Your task to perform on an android device: Play the last video I watched on Youtube Image 0: 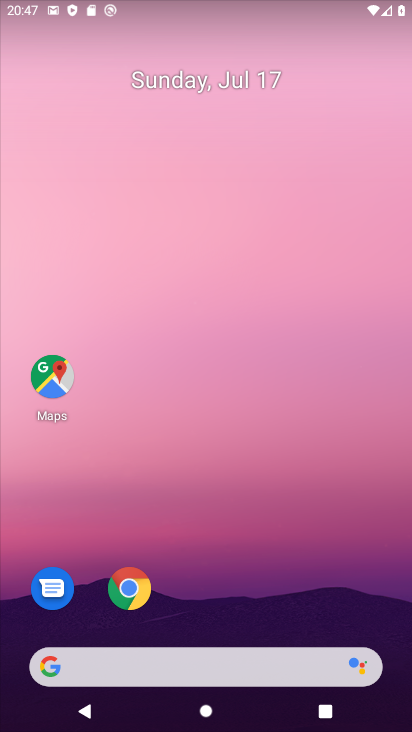
Step 0: press home button
Your task to perform on an android device: Play the last video I watched on Youtube Image 1: 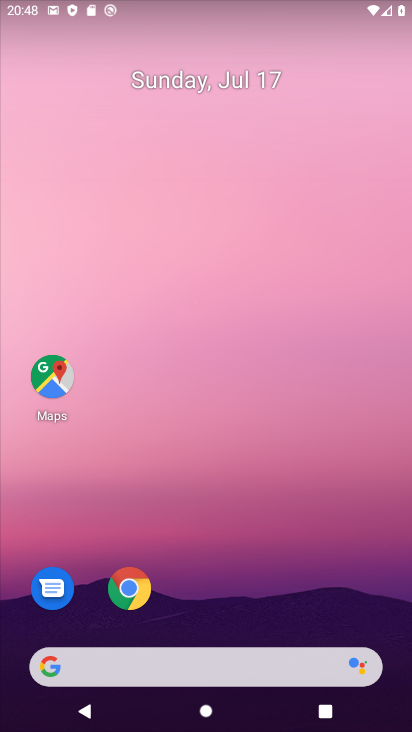
Step 1: drag from (313, 586) to (364, 0)
Your task to perform on an android device: Play the last video I watched on Youtube Image 2: 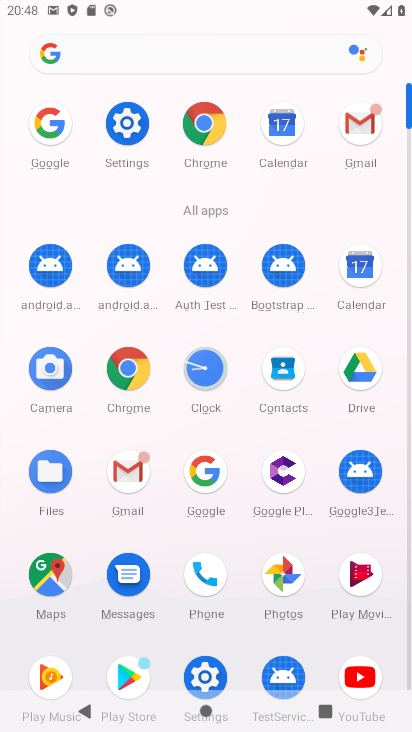
Step 2: click (363, 690)
Your task to perform on an android device: Play the last video I watched on Youtube Image 3: 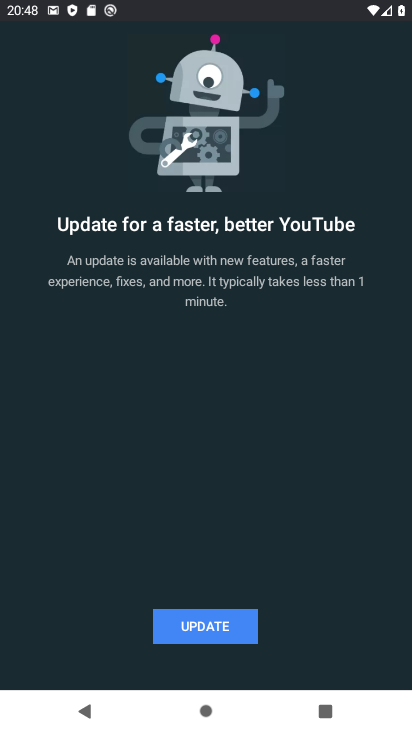
Step 3: click (256, 643)
Your task to perform on an android device: Play the last video I watched on Youtube Image 4: 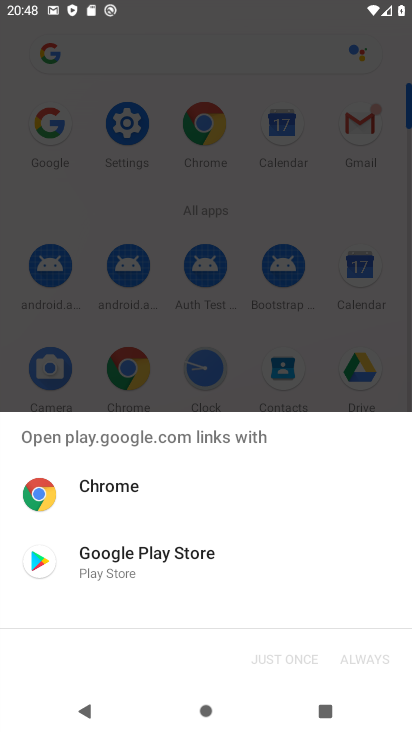
Step 4: click (183, 575)
Your task to perform on an android device: Play the last video I watched on Youtube Image 5: 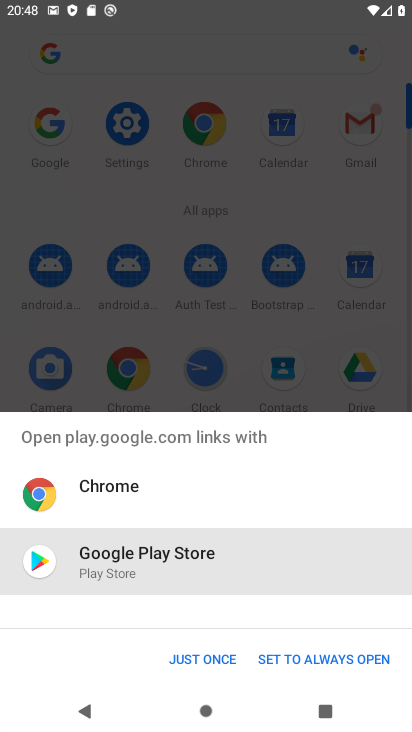
Step 5: click (219, 660)
Your task to perform on an android device: Play the last video I watched on Youtube Image 6: 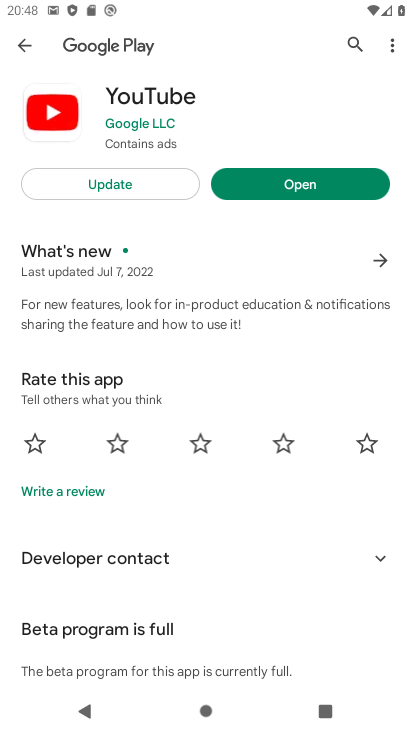
Step 6: click (122, 182)
Your task to perform on an android device: Play the last video I watched on Youtube Image 7: 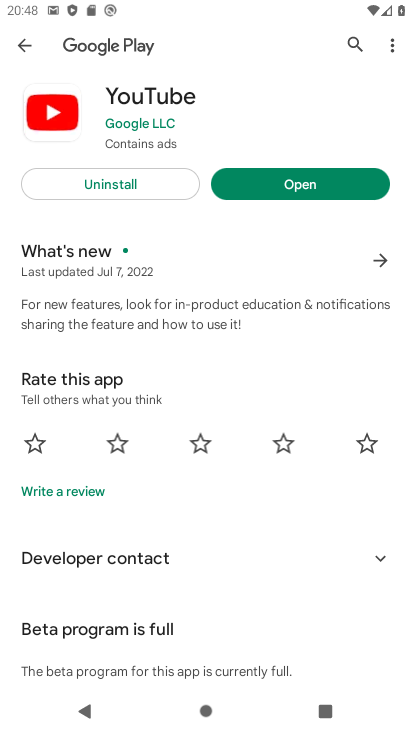
Step 7: click (324, 190)
Your task to perform on an android device: Play the last video I watched on Youtube Image 8: 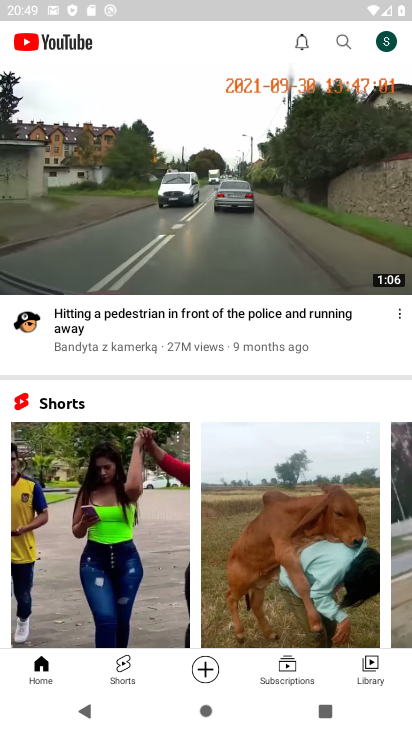
Step 8: click (363, 663)
Your task to perform on an android device: Play the last video I watched on Youtube Image 9: 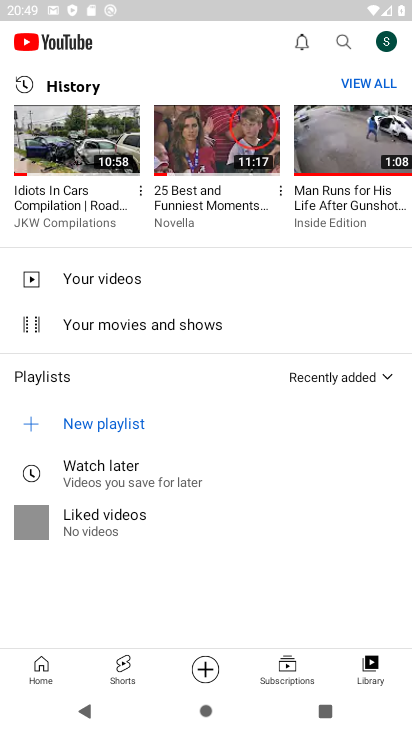
Step 9: click (52, 219)
Your task to perform on an android device: Play the last video I watched on Youtube Image 10: 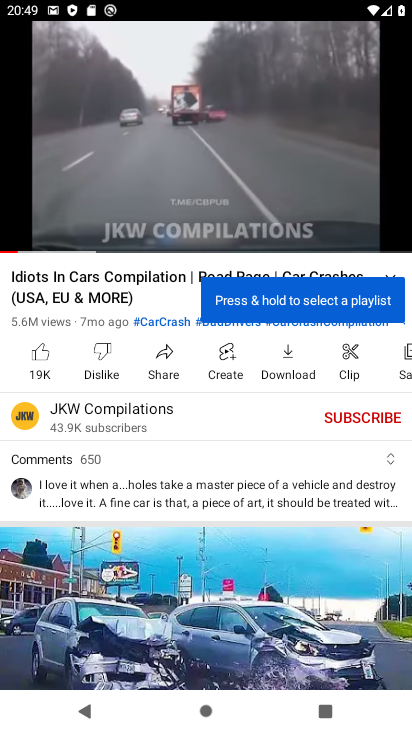
Step 10: task complete